Your task to perform on an android device: check data usage Image 0: 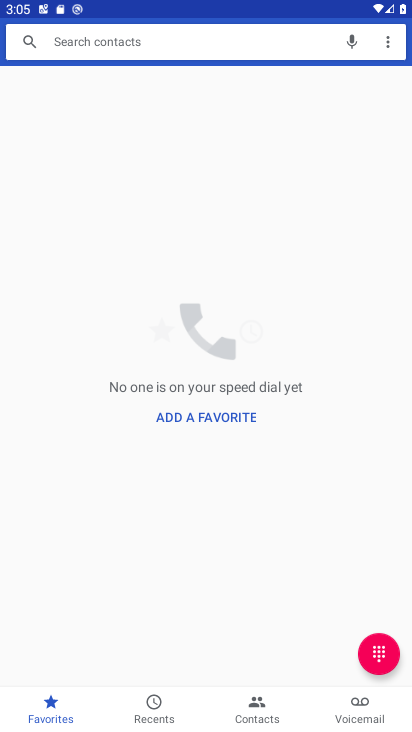
Step 0: press home button
Your task to perform on an android device: check data usage Image 1: 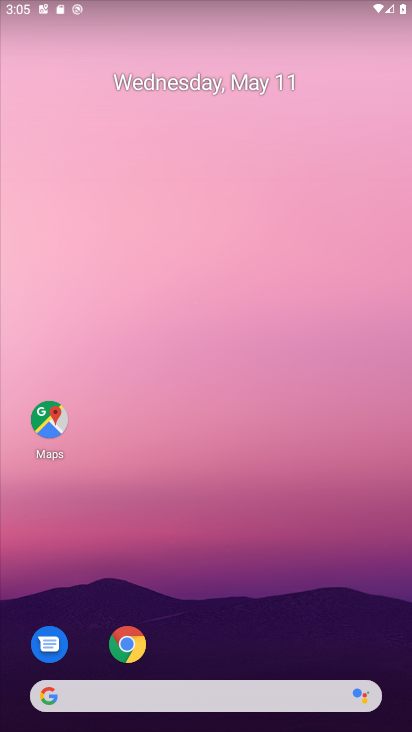
Step 1: drag from (182, 689) to (225, 1)
Your task to perform on an android device: check data usage Image 2: 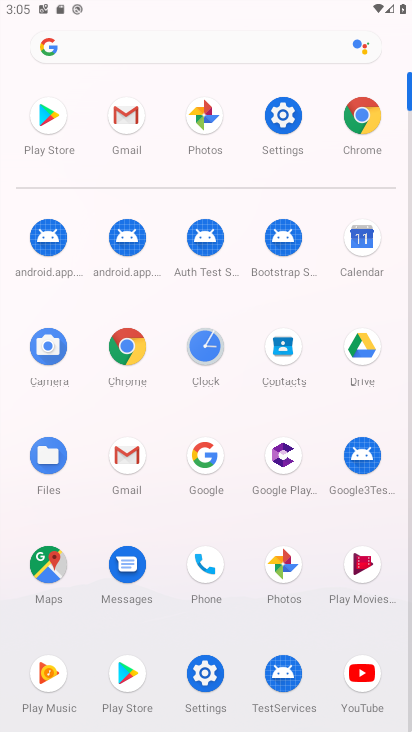
Step 2: click (271, 125)
Your task to perform on an android device: check data usage Image 3: 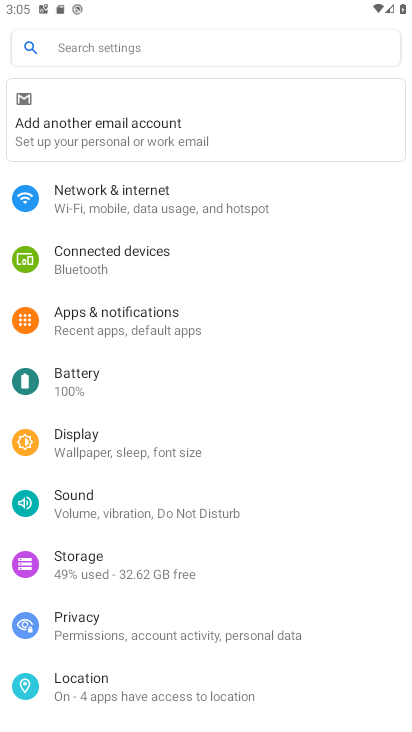
Step 3: click (77, 200)
Your task to perform on an android device: check data usage Image 4: 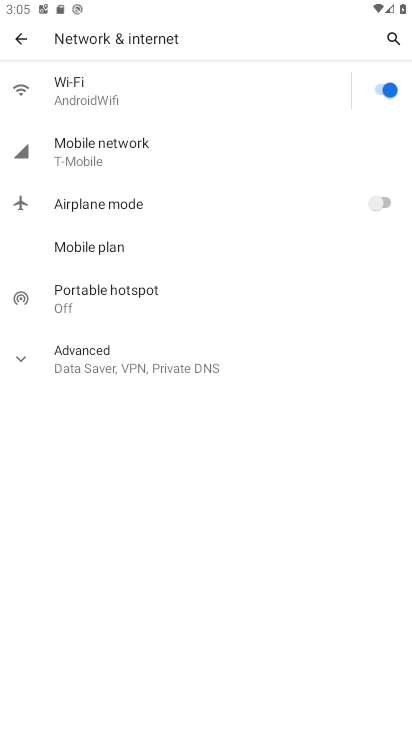
Step 4: click (108, 174)
Your task to perform on an android device: check data usage Image 5: 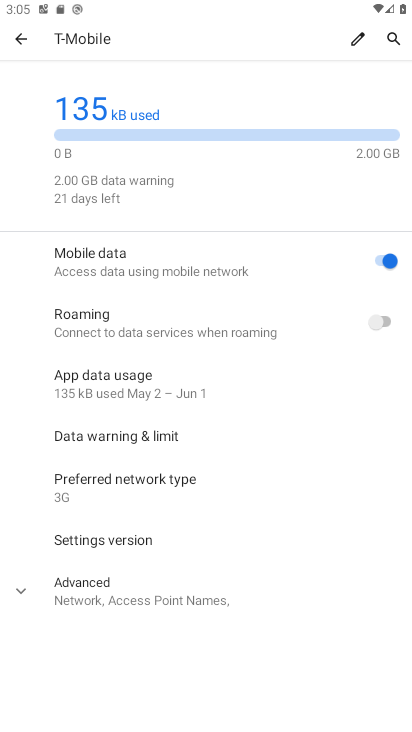
Step 5: task complete